Your task to perform on an android device: create a new album in the google photos Image 0: 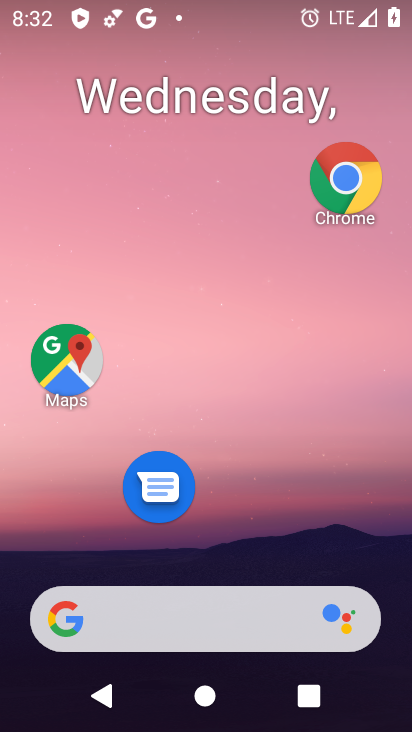
Step 0: drag from (199, 566) to (278, 70)
Your task to perform on an android device: create a new album in the google photos Image 1: 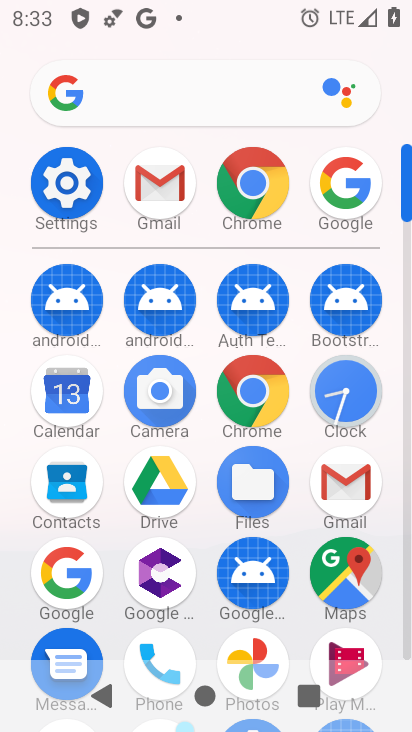
Step 1: drag from (230, 444) to (295, 178)
Your task to perform on an android device: create a new album in the google photos Image 2: 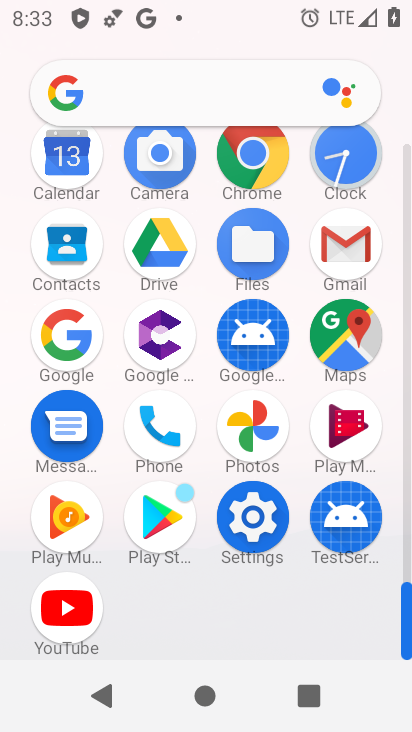
Step 2: click (255, 429)
Your task to perform on an android device: create a new album in the google photos Image 3: 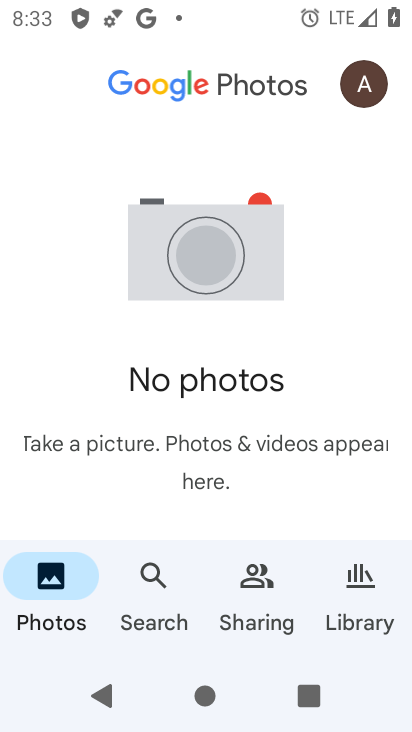
Step 3: click (175, 591)
Your task to perform on an android device: create a new album in the google photos Image 4: 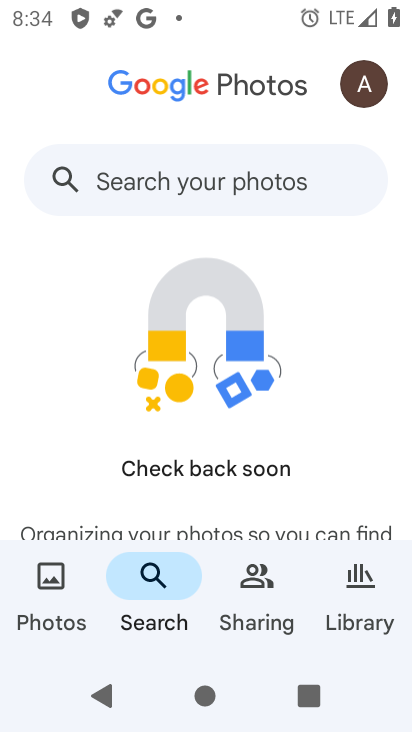
Step 4: drag from (229, 454) to (264, 266)
Your task to perform on an android device: create a new album in the google photos Image 5: 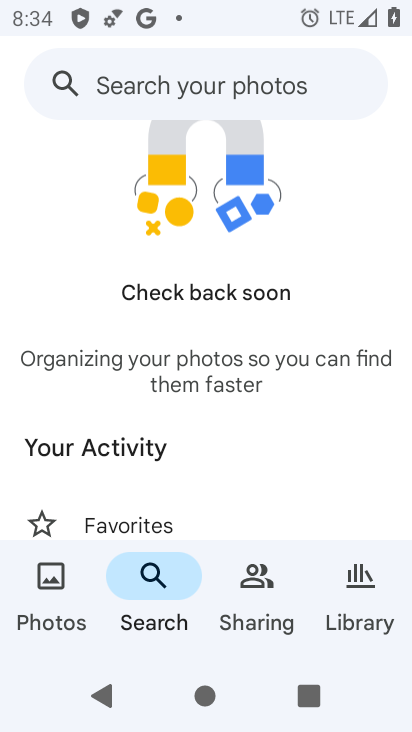
Step 5: drag from (191, 439) to (263, 168)
Your task to perform on an android device: create a new album in the google photos Image 6: 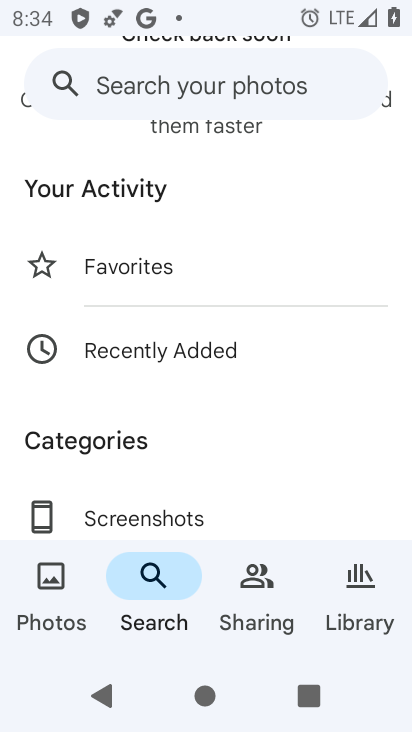
Step 6: drag from (198, 427) to (227, 307)
Your task to perform on an android device: create a new album in the google photos Image 7: 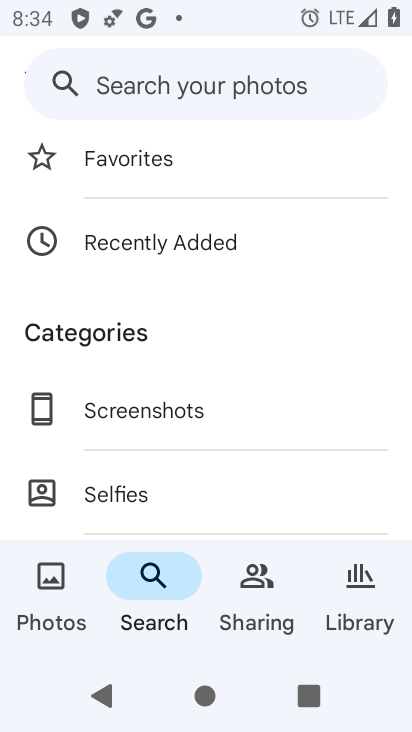
Step 7: click (266, 613)
Your task to perform on an android device: create a new album in the google photos Image 8: 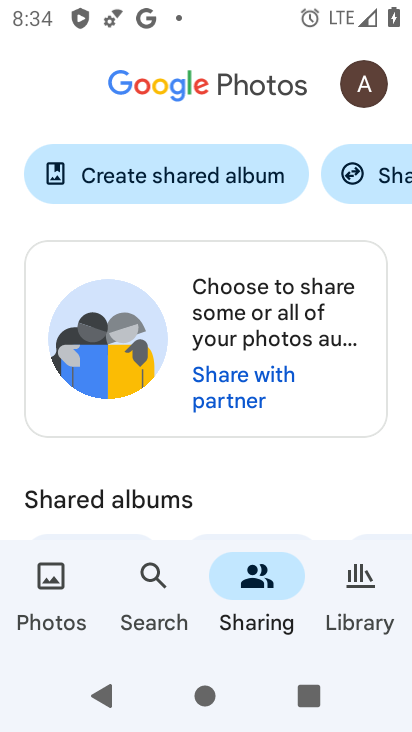
Step 8: drag from (306, 390) to (180, 227)
Your task to perform on an android device: create a new album in the google photos Image 9: 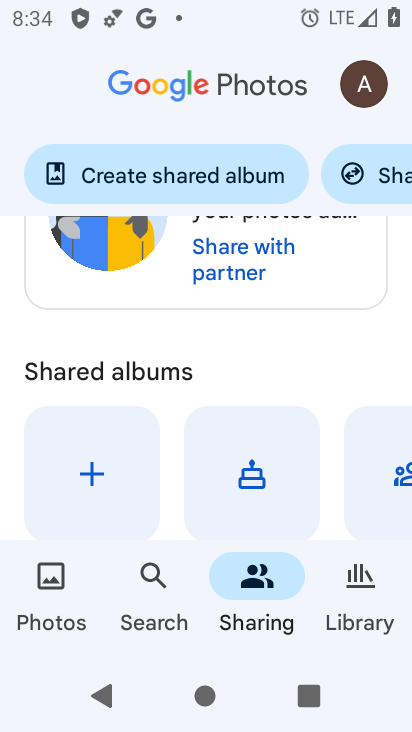
Step 9: drag from (105, 388) to (120, 306)
Your task to perform on an android device: create a new album in the google photos Image 10: 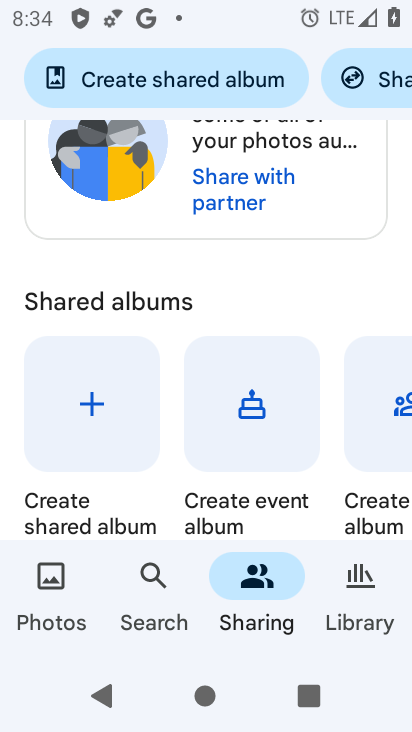
Step 10: click (107, 402)
Your task to perform on an android device: create a new album in the google photos Image 11: 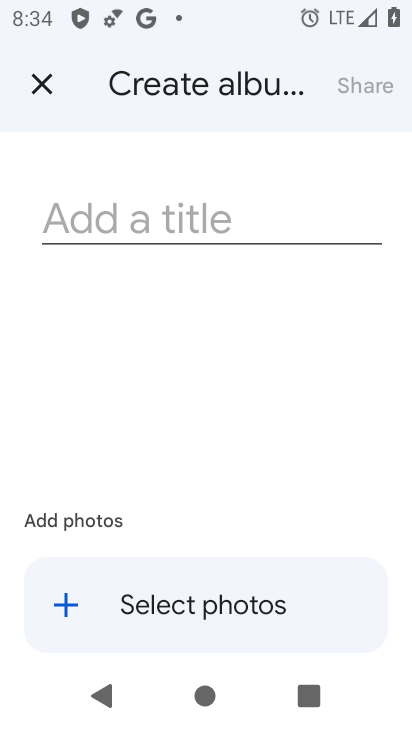
Step 11: click (178, 221)
Your task to perform on an android device: create a new album in the google photos Image 12: 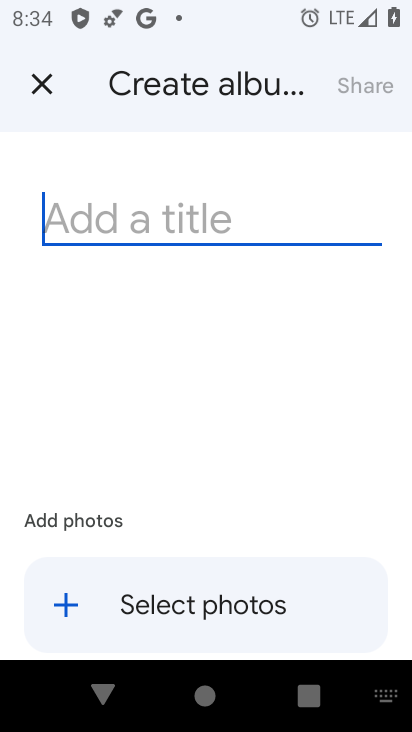
Step 12: type "hjvjvk"
Your task to perform on an android device: create a new album in the google photos Image 13: 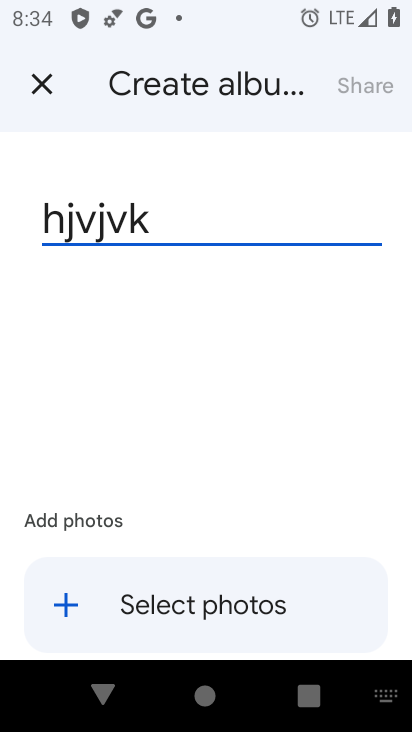
Step 13: click (71, 609)
Your task to perform on an android device: create a new album in the google photos Image 14: 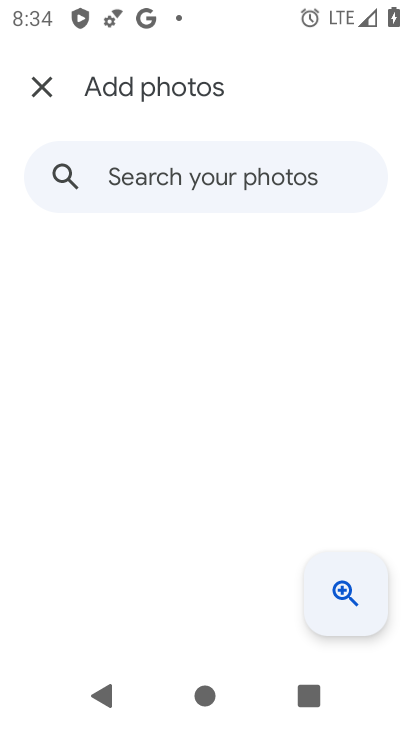
Step 14: click (165, 242)
Your task to perform on an android device: create a new album in the google photos Image 15: 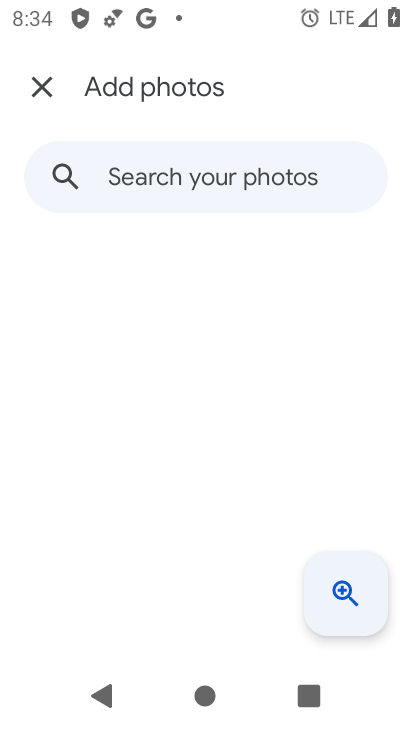
Step 15: task complete